Your task to perform on an android device: check data usage Image 0: 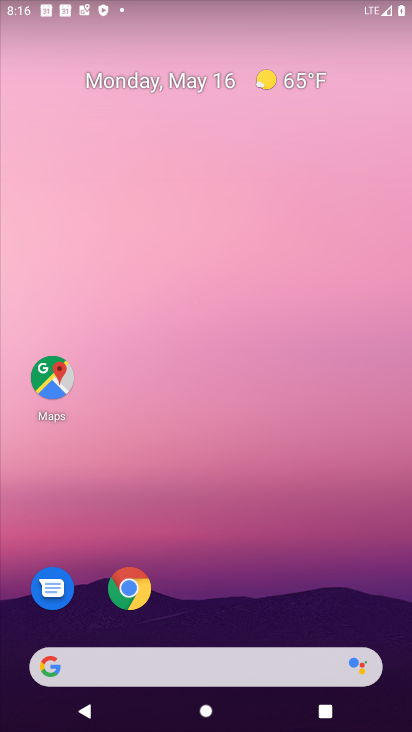
Step 0: drag from (214, 575) to (140, 20)
Your task to perform on an android device: check data usage Image 1: 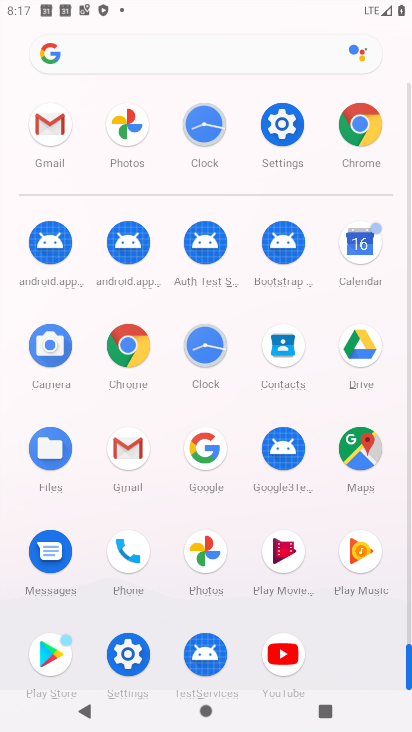
Step 1: click (125, 652)
Your task to perform on an android device: check data usage Image 2: 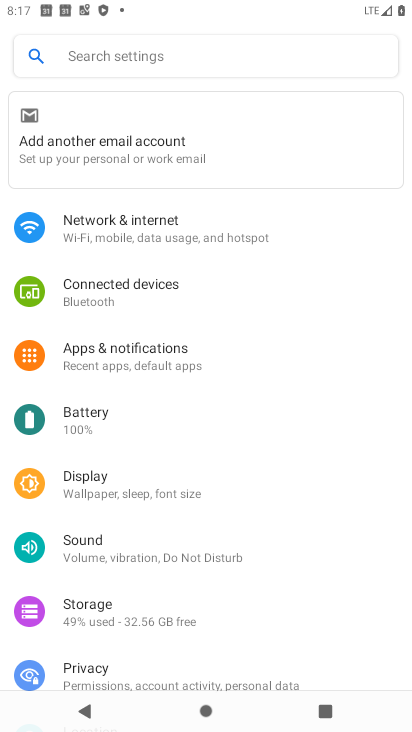
Step 2: click (182, 216)
Your task to perform on an android device: check data usage Image 3: 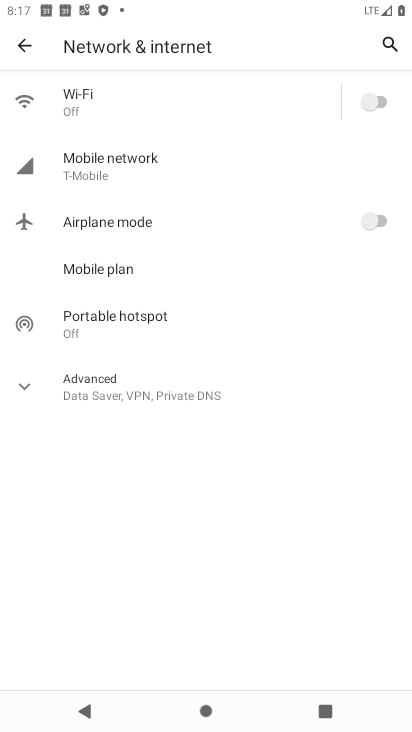
Step 3: click (36, 380)
Your task to perform on an android device: check data usage Image 4: 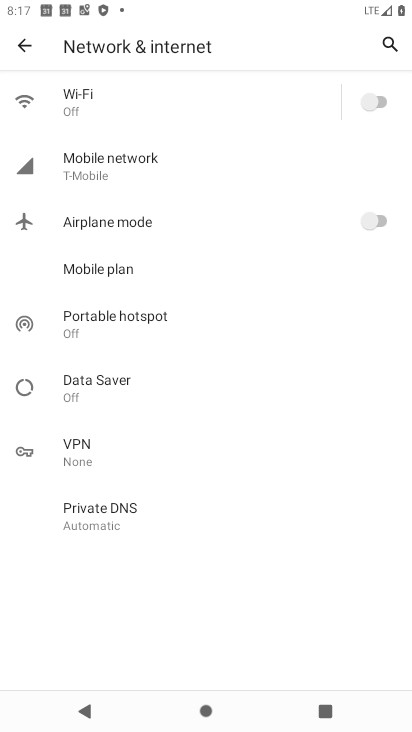
Step 4: click (102, 161)
Your task to perform on an android device: check data usage Image 5: 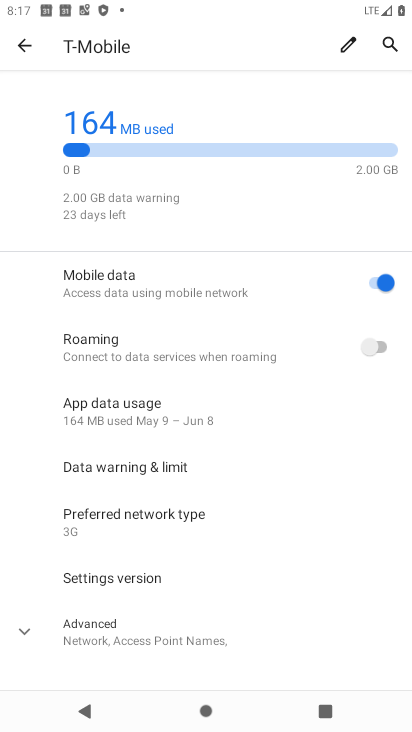
Step 5: task complete